Your task to perform on an android device: What's the weather going to be this weekend? Image 0: 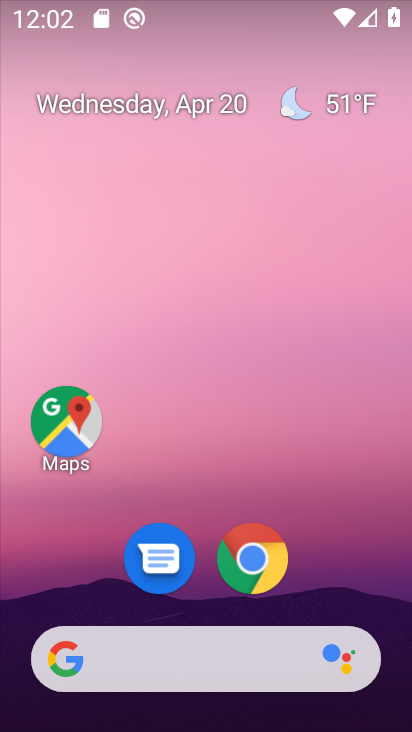
Step 0: click (333, 99)
Your task to perform on an android device: What's the weather going to be this weekend? Image 1: 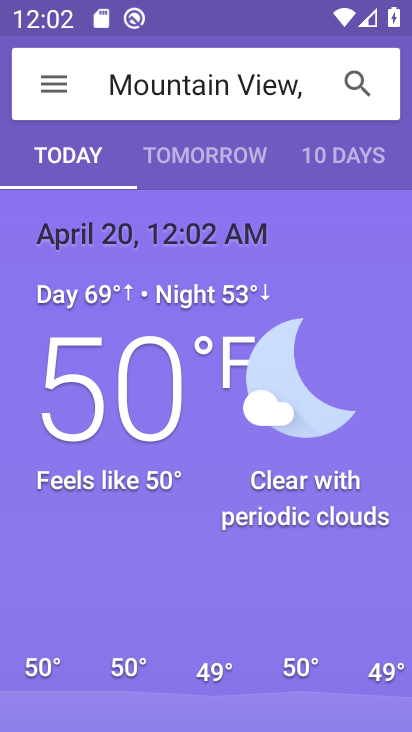
Step 1: click (340, 156)
Your task to perform on an android device: What's the weather going to be this weekend? Image 2: 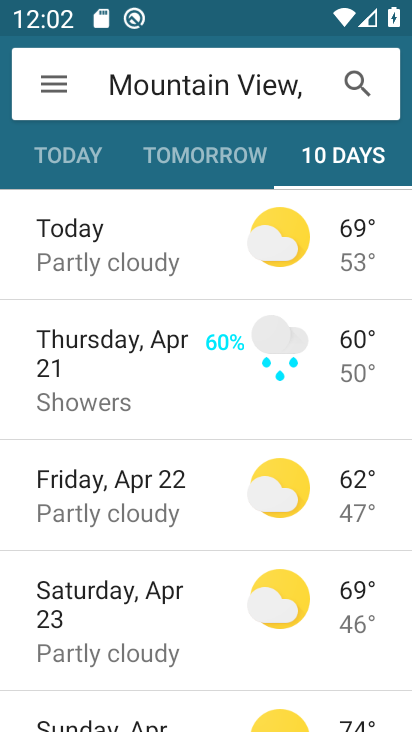
Step 2: task complete